Your task to perform on an android device: Do I have any events today? Image 0: 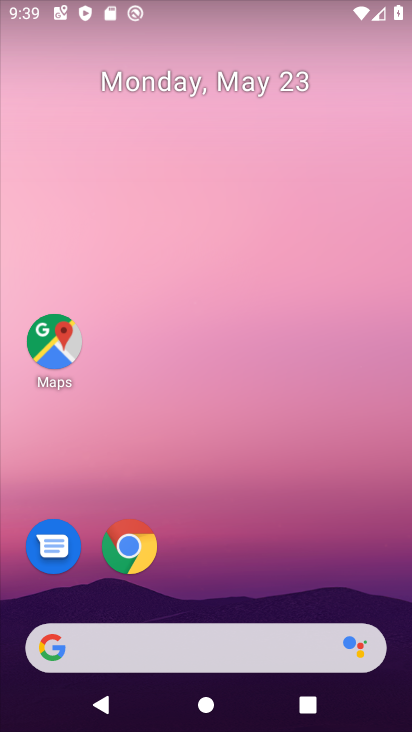
Step 0: drag from (380, 609) to (282, 21)
Your task to perform on an android device: Do I have any events today? Image 1: 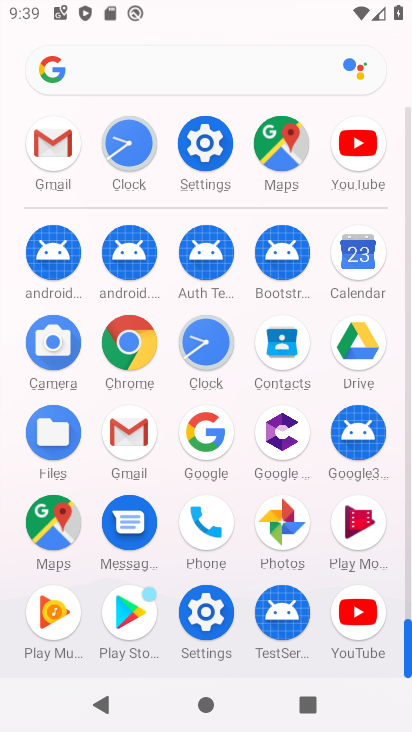
Step 1: click (359, 252)
Your task to perform on an android device: Do I have any events today? Image 2: 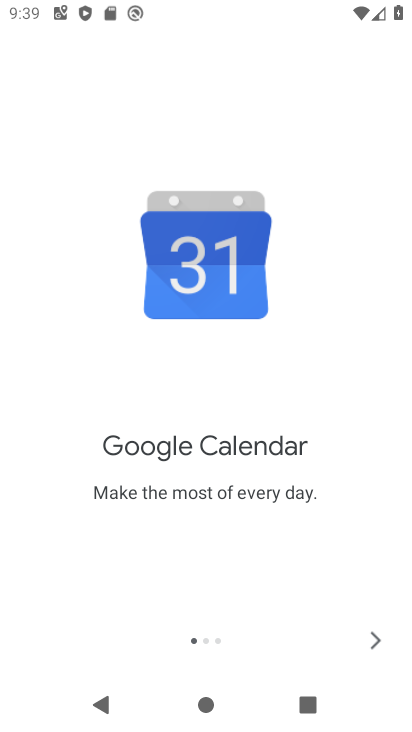
Step 2: click (368, 635)
Your task to perform on an android device: Do I have any events today? Image 3: 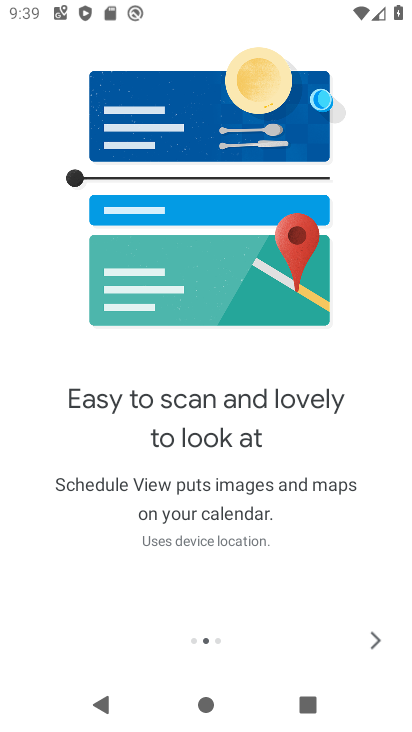
Step 3: click (368, 635)
Your task to perform on an android device: Do I have any events today? Image 4: 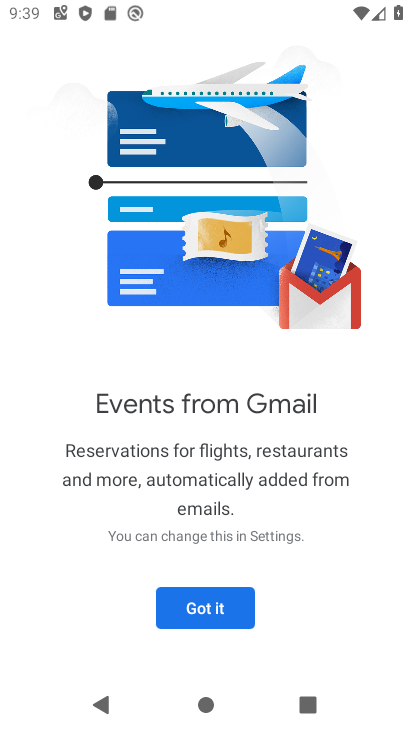
Step 4: click (182, 602)
Your task to perform on an android device: Do I have any events today? Image 5: 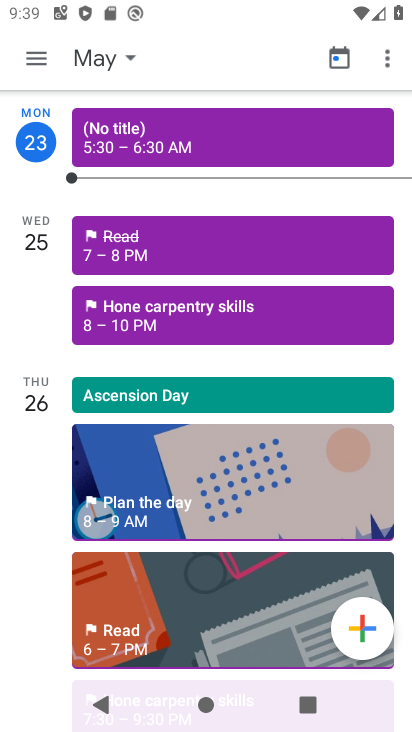
Step 5: click (34, 57)
Your task to perform on an android device: Do I have any events today? Image 6: 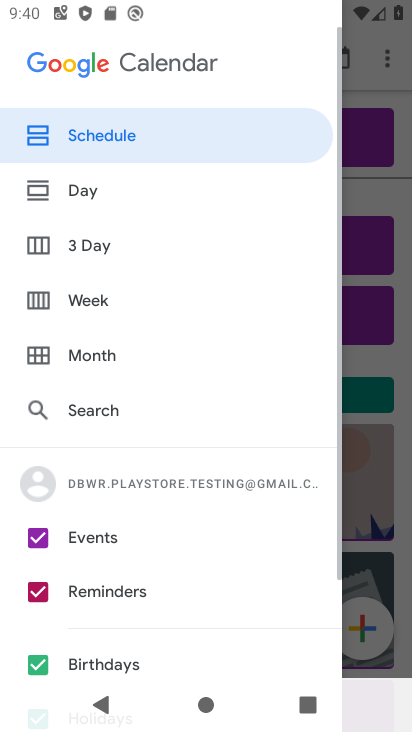
Step 6: click (88, 192)
Your task to perform on an android device: Do I have any events today? Image 7: 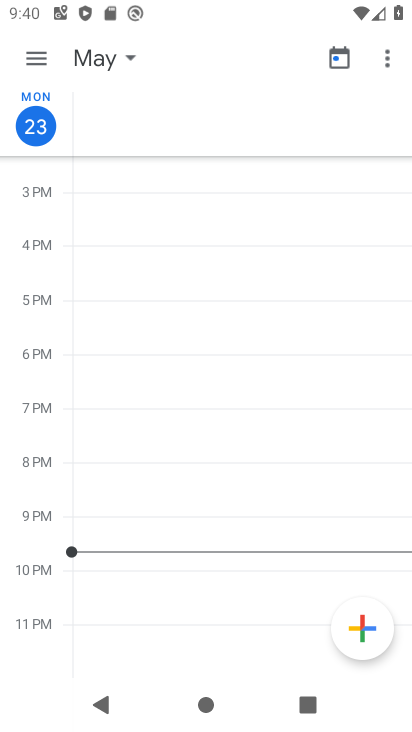
Step 7: task complete